Your task to perform on an android device: visit the assistant section in the google photos Image 0: 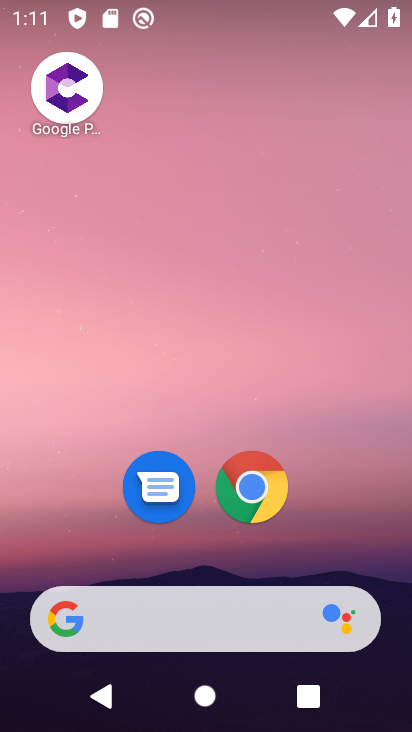
Step 0: drag from (151, 561) to (213, 17)
Your task to perform on an android device: visit the assistant section in the google photos Image 1: 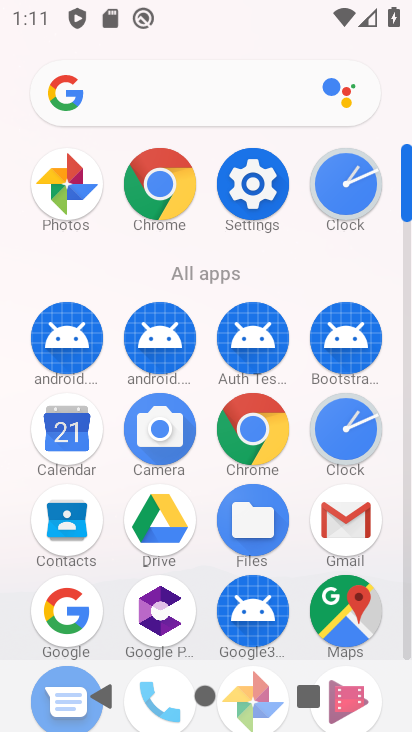
Step 1: drag from (227, 568) to (303, 203)
Your task to perform on an android device: visit the assistant section in the google photos Image 2: 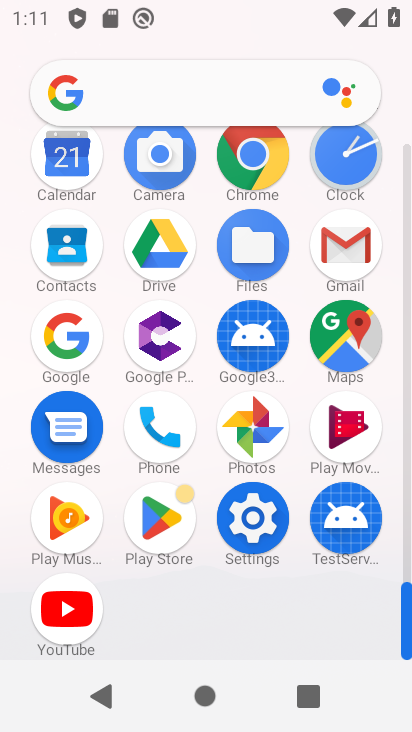
Step 2: click (267, 453)
Your task to perform on an android device: visit the assistant section in the google photos Image 3: 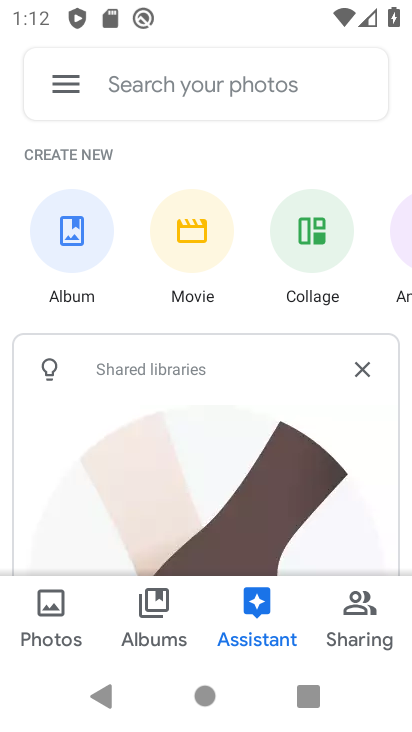
Step 3: task complete